Your task to perform on an android device: turn off improve location accuracy Image 0: 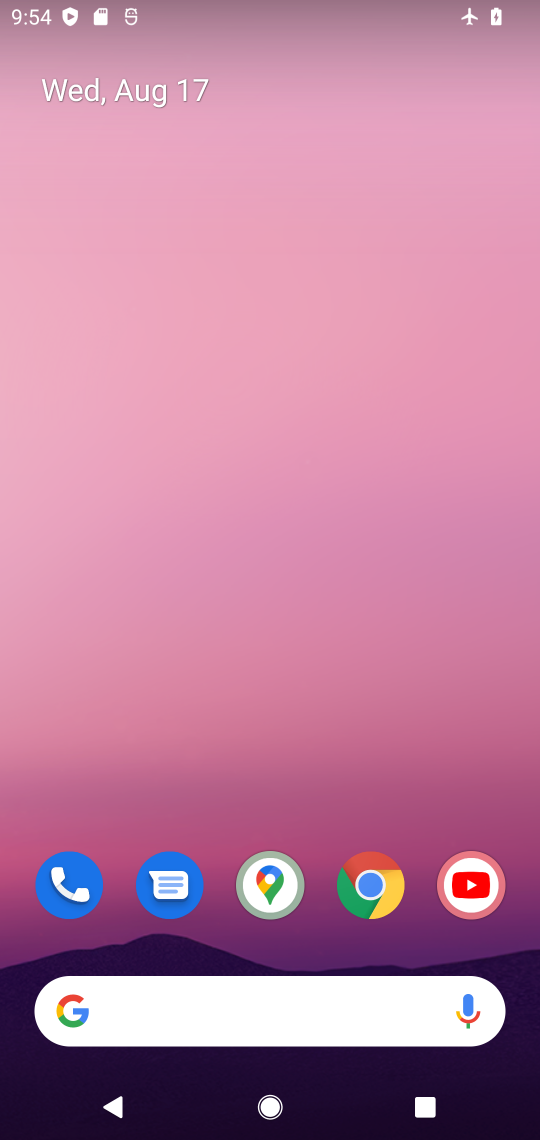
Step 0: press home button
Your task to perform on an android device: turn off improve location accuracy Image 1: 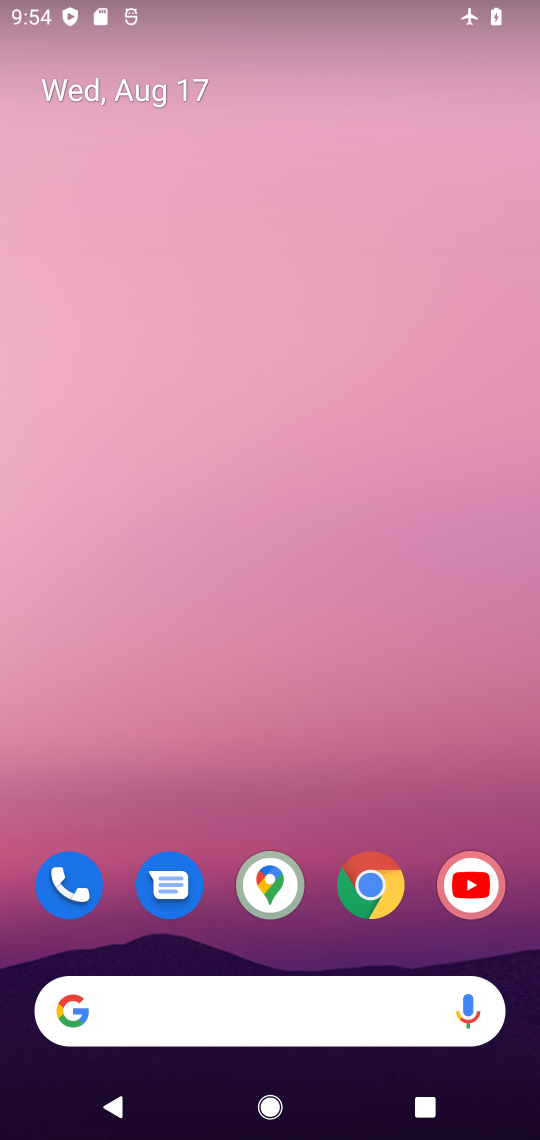
Step 1: drag from (422, 946) to (401, 201)
Your task to perform on an android device: turn off improve location accuracy Image 2: 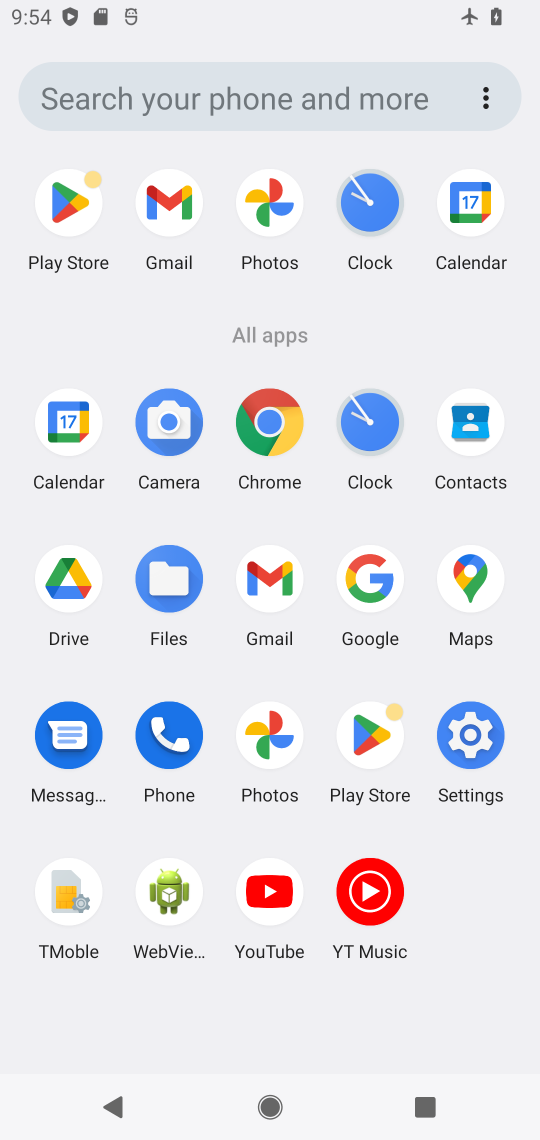
Step 2: click (463, 734)
Your task to perform on an android device: turn off improve location accuracy Image 3: 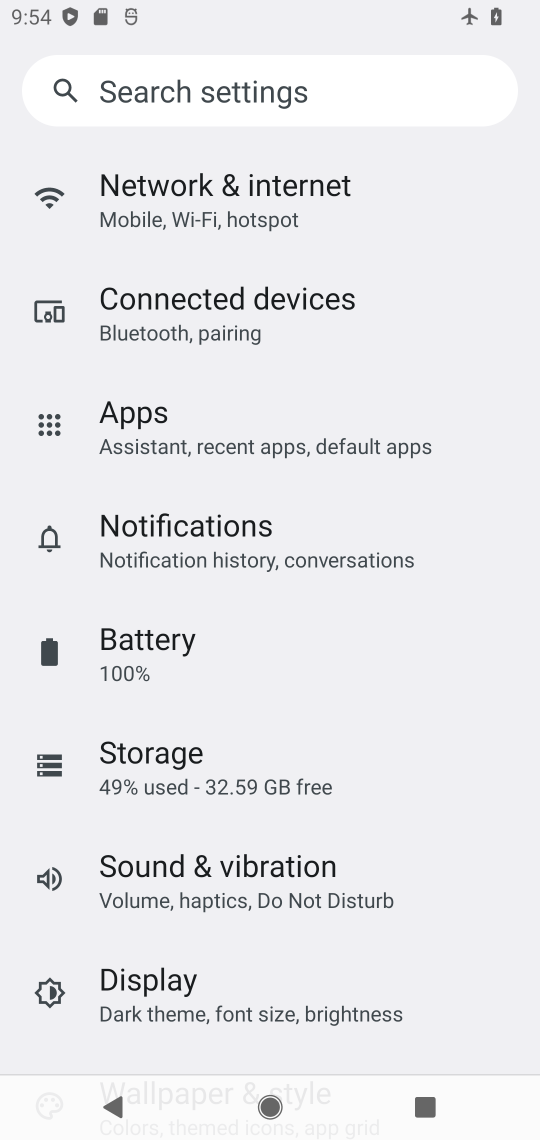
Step 3: drag from (444, 960) to (450, 285)
Your task to perform on an android device: turn off improve location accuracy Image 4: 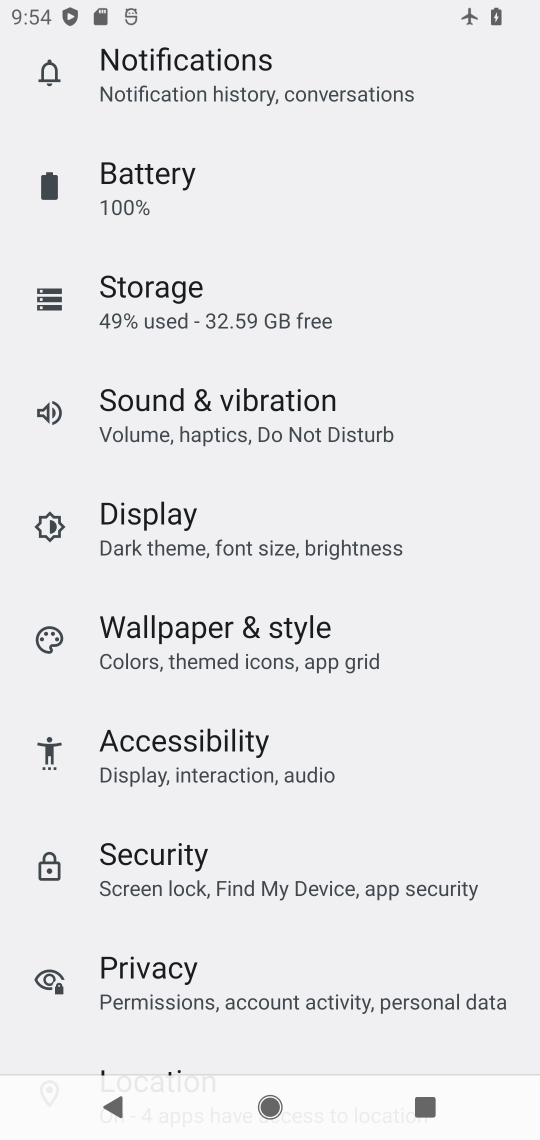
Step 4: drag from (414, 941) to (405, 236)
Your task to perform on an android device: turn off improve location accuracy Image 5: 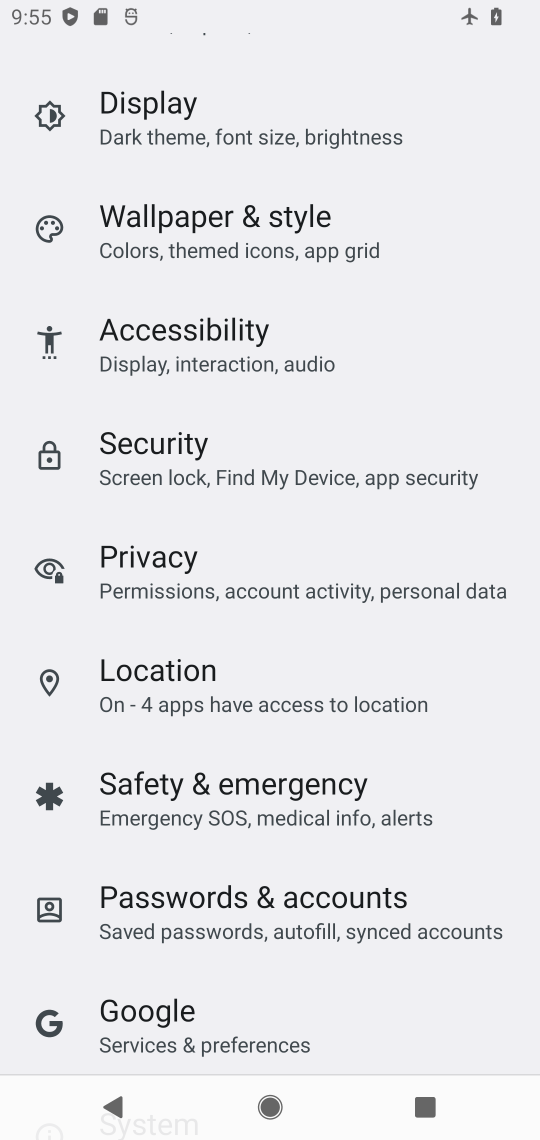
Step 5: click (170, 671)
Your task to perform on an android device: turn off improve location accuracy Image 6: 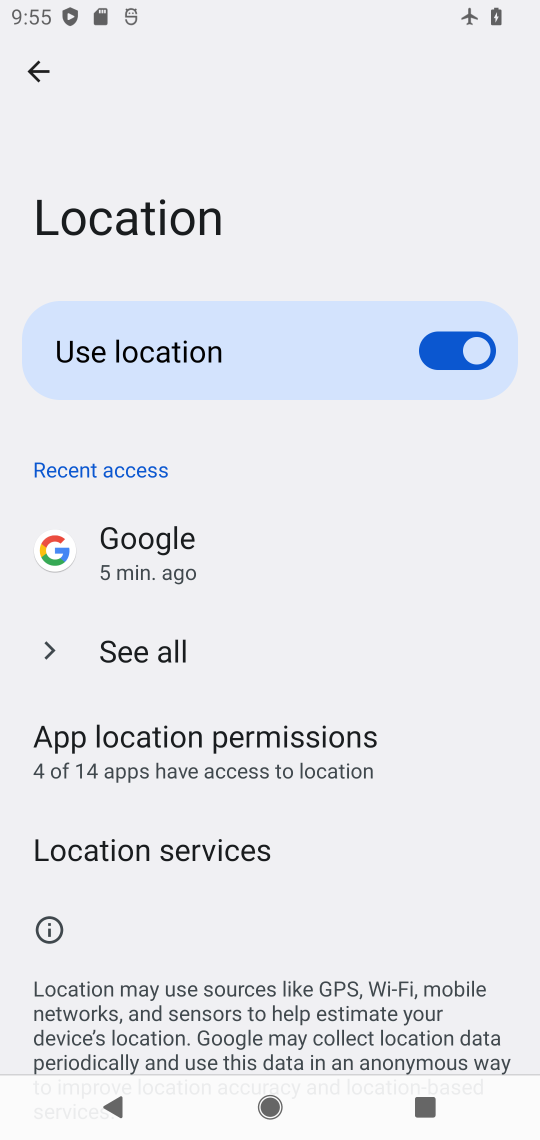
Step 6: click (160, 858)
Your task to perform on an android device: turn off improve location accuracy Image 7: 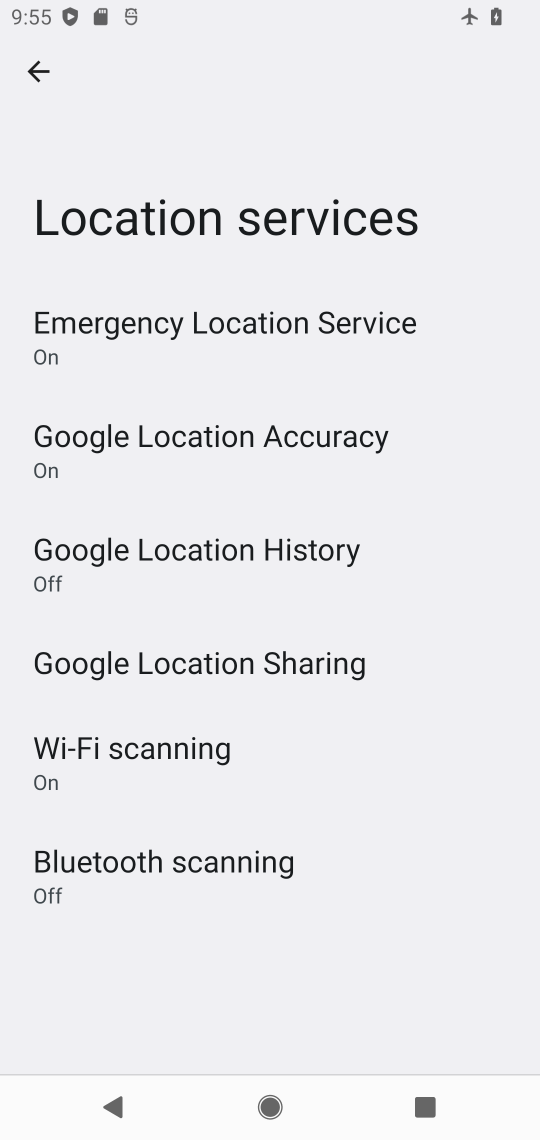
Step 7: click (210, 437)
Your task to perform on an android device: turn off improve location accuracy Image 8: 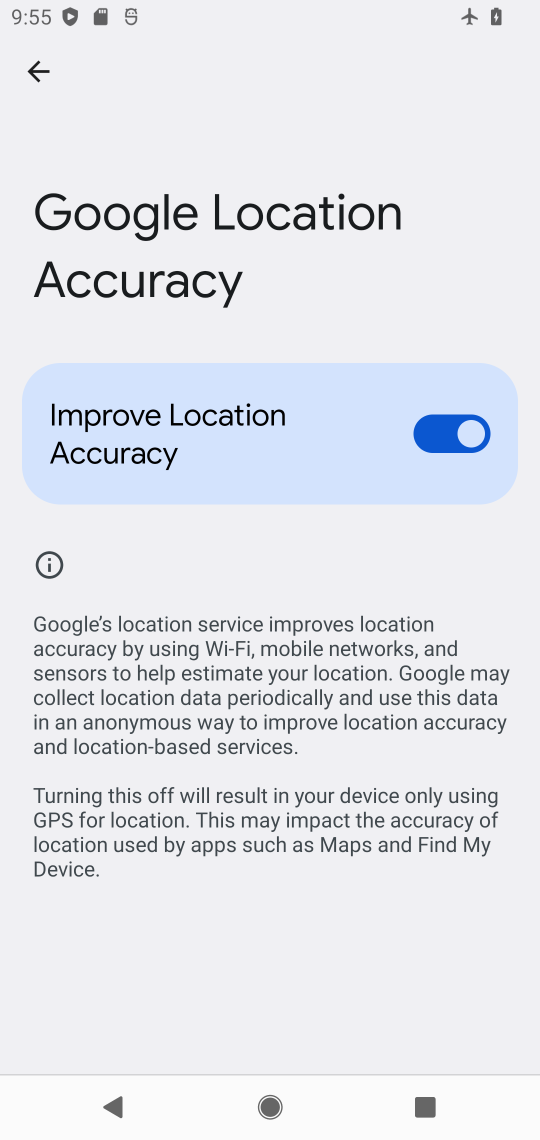
Step 8: click (422, 438)
Your task to perform on an android device: turn off improve location accuracy Image 9: 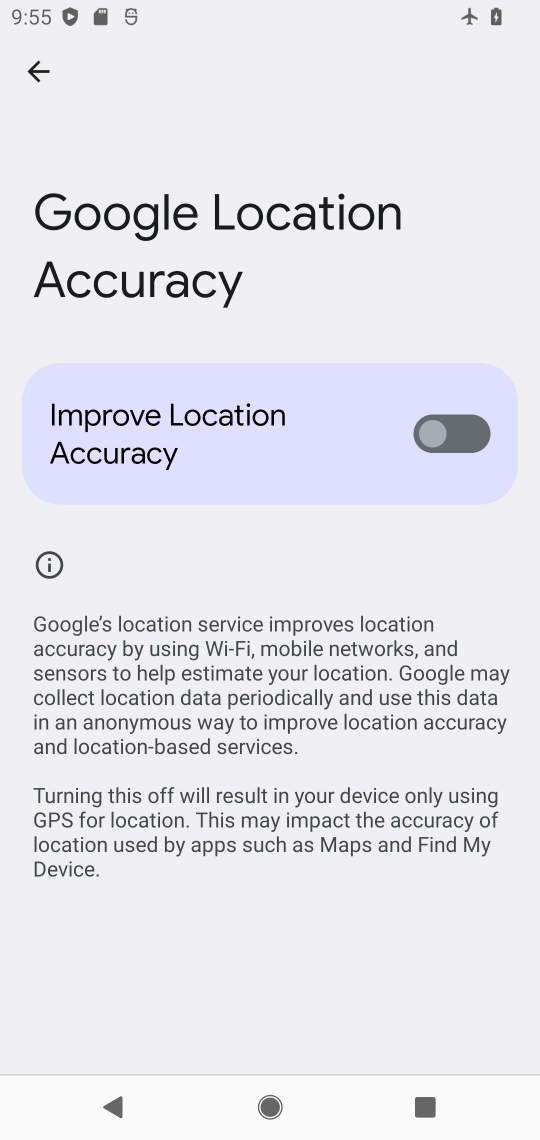
Step 9: task complete